Your task to perform on an android device: Go to network settings Image 0: 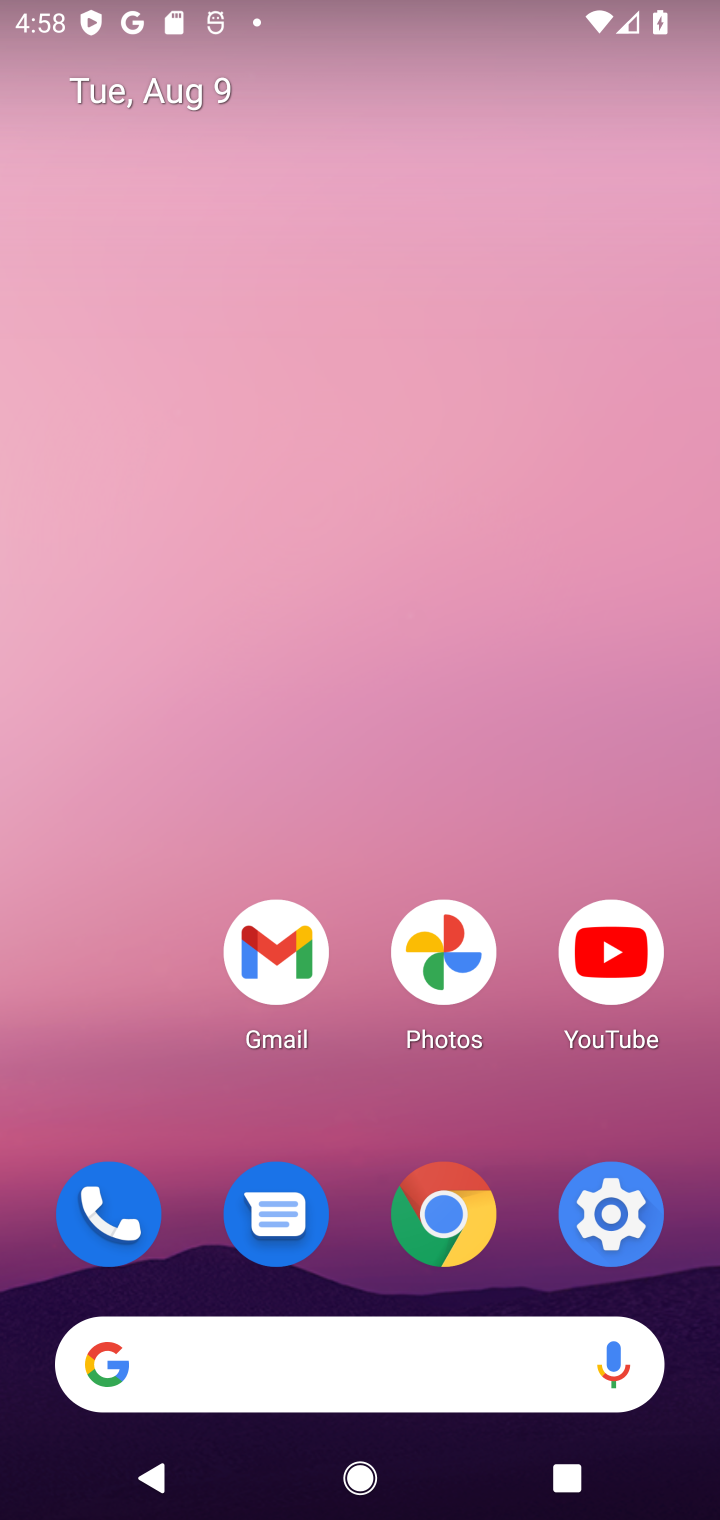
Step 0: press home button
Your task to perform on an android device: Go to network settings Image 1: 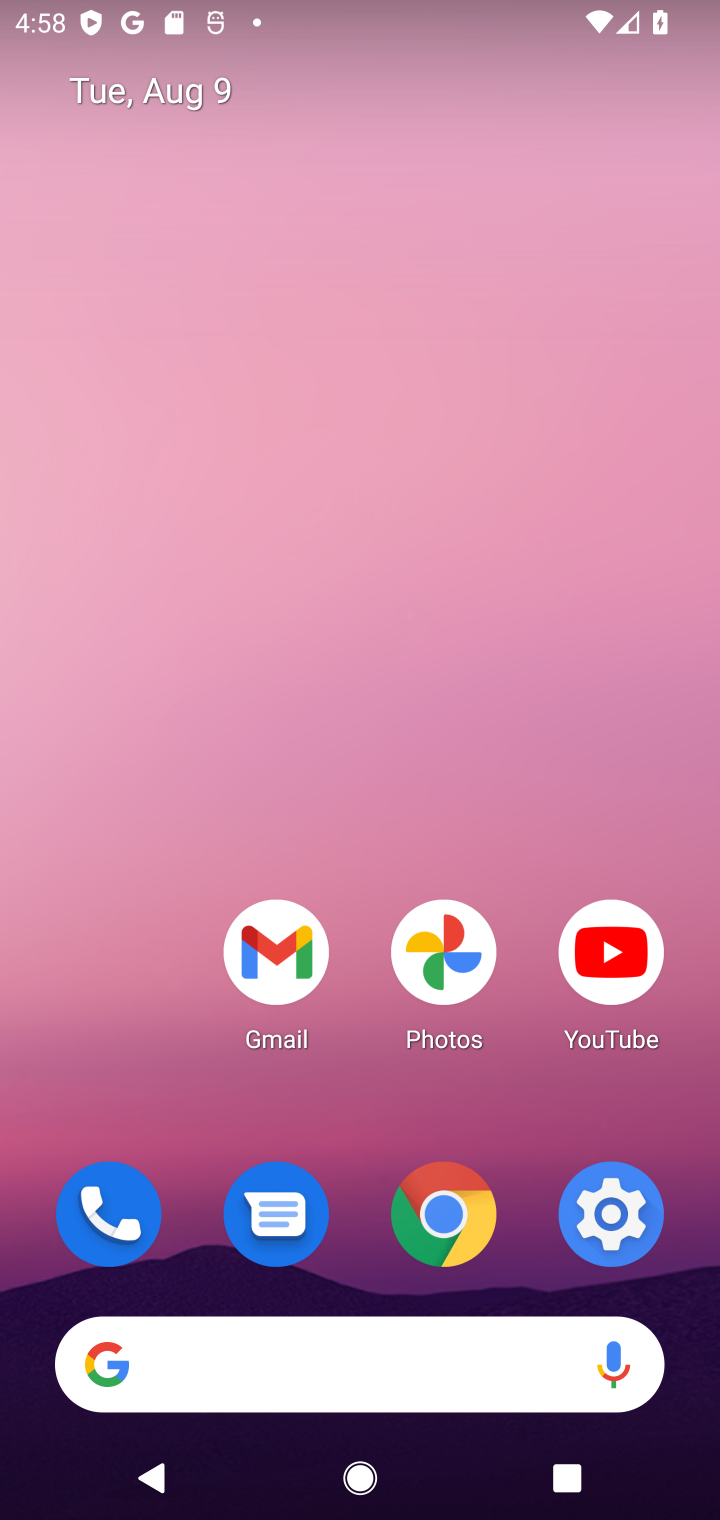
Step 1: click (622, 1224)
Your task to perform on an android device: Go to network settings Image 2: 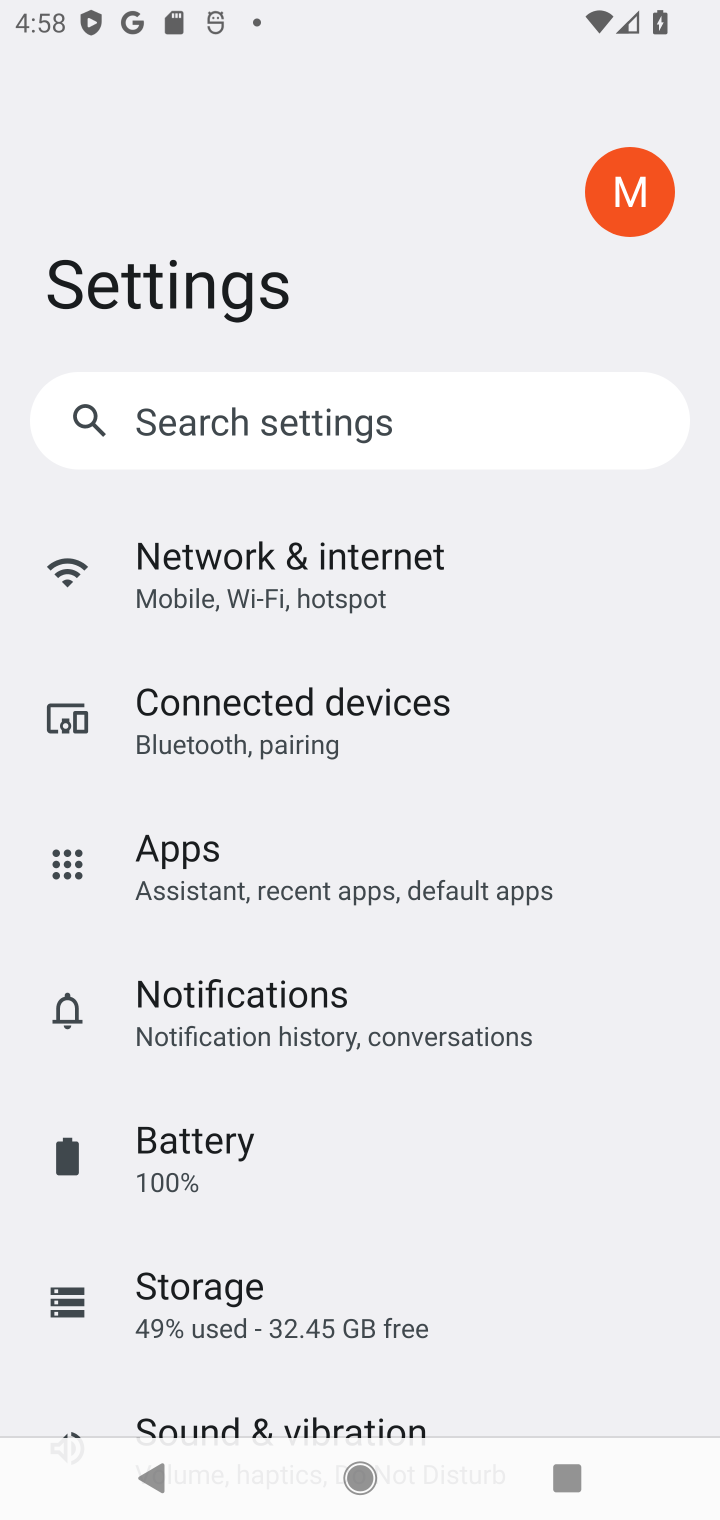
Step 2: click (244, 583)
Your task to perform on an android device: Go to network settings Image 3: 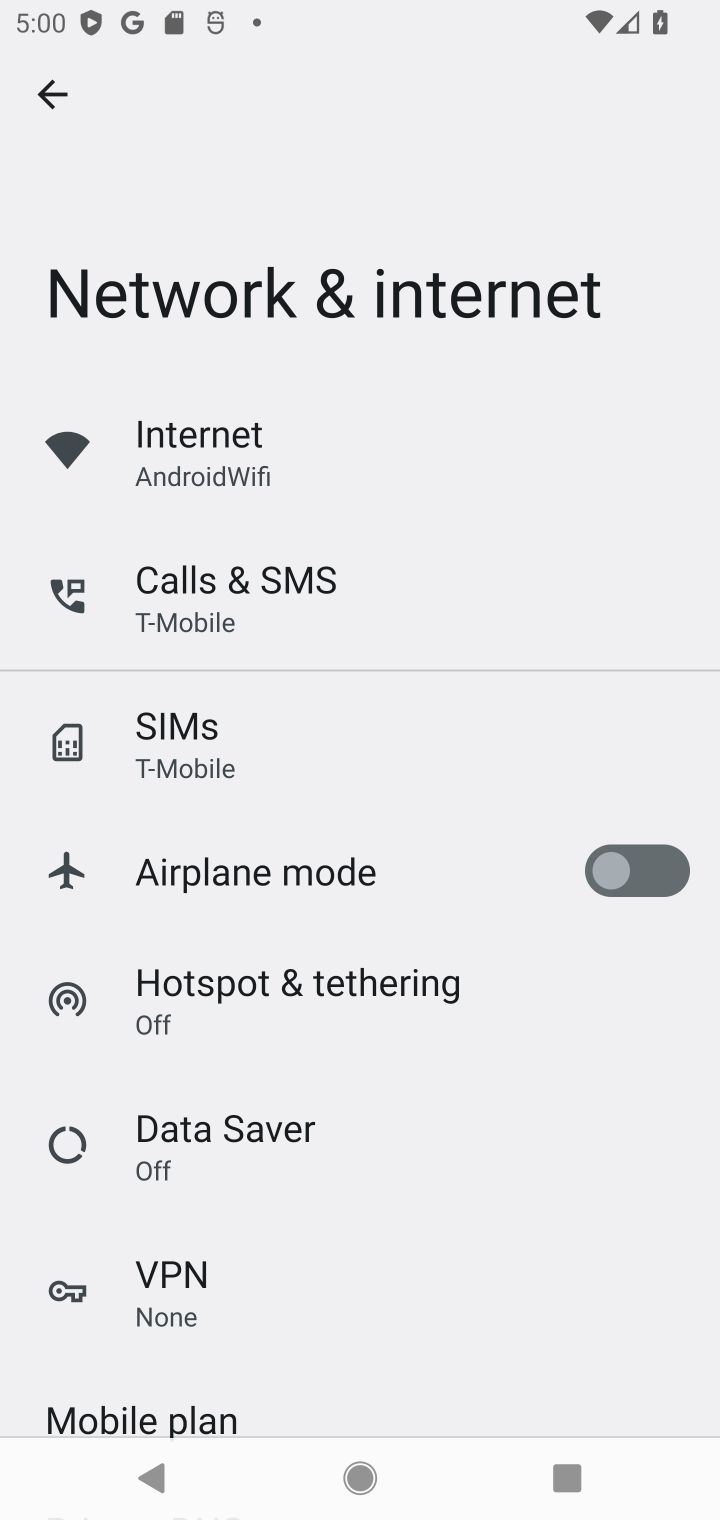
Step 3: task complete